Your task to perform on an android device: Open settings on Google Maps Image 0: 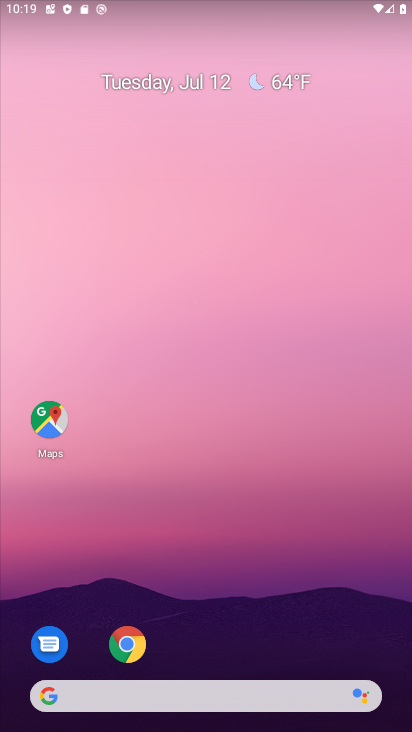
Step 0: drag from (289, 646) to (278, 111)
Your task to perform on an android device: Open settings on Google Maps Image 1: 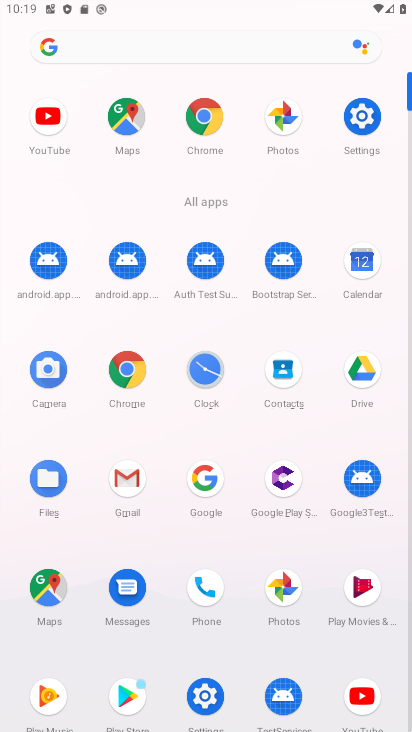
Step 1: click (142, 119)
Your task to perform on an android device: Open settings on Google Maps Image 2: 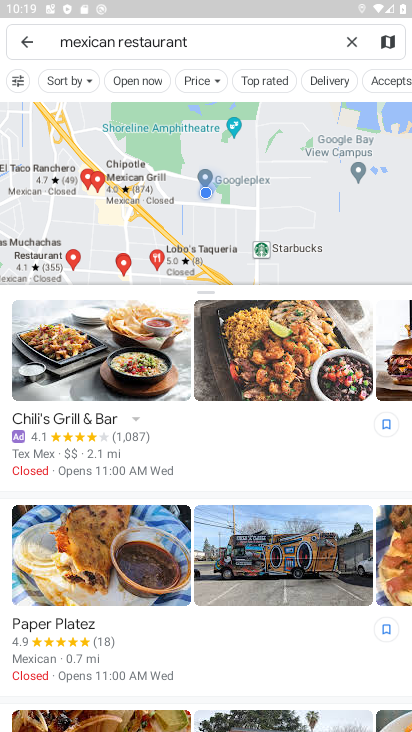
Step 2: click (19, 39)
Your task to perform on an android device: Open settings on Google Maps Image 3: 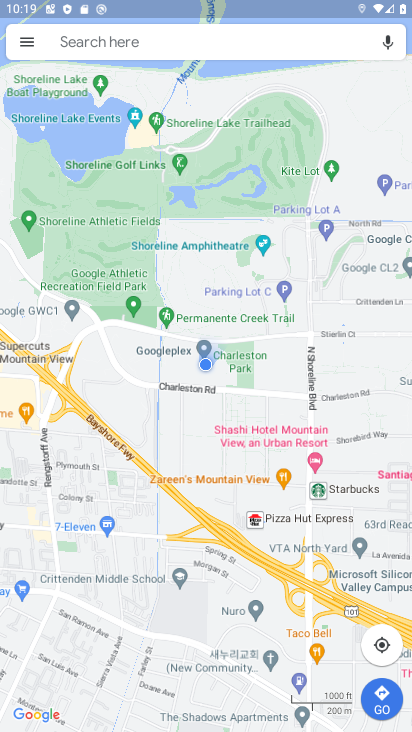
Step 3: click (19, 39)
Your task to perform on an android device: Open settings on Google Maps Image 4: 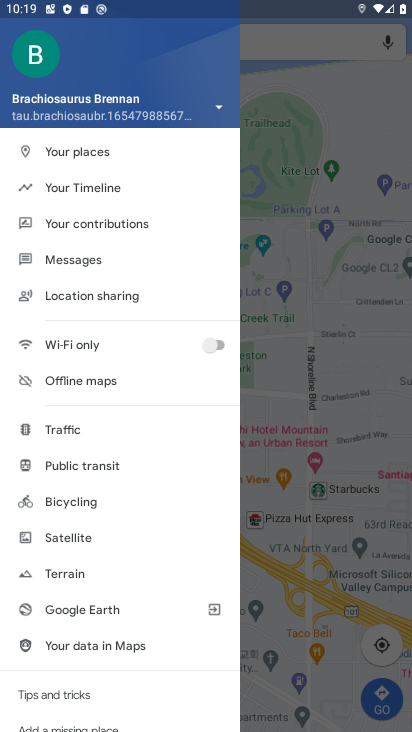
Step 4: task complete